Your task to perform on an android device: toggle priority inbox in the gmail app Image 0: 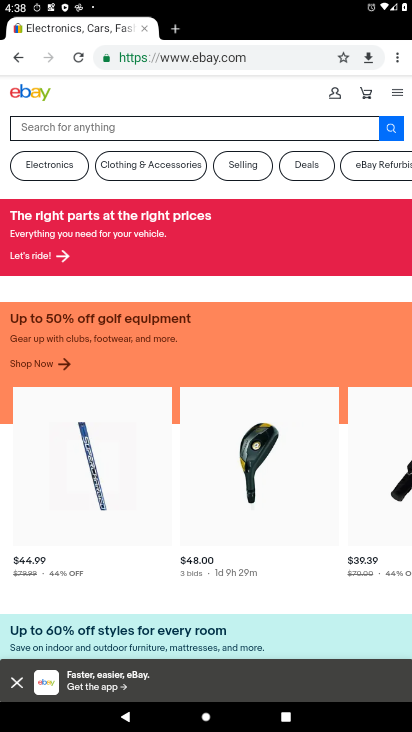
Step 0: press home button
Your task to perform on an android device: toggle priority inbox in the gmail app Image 1: 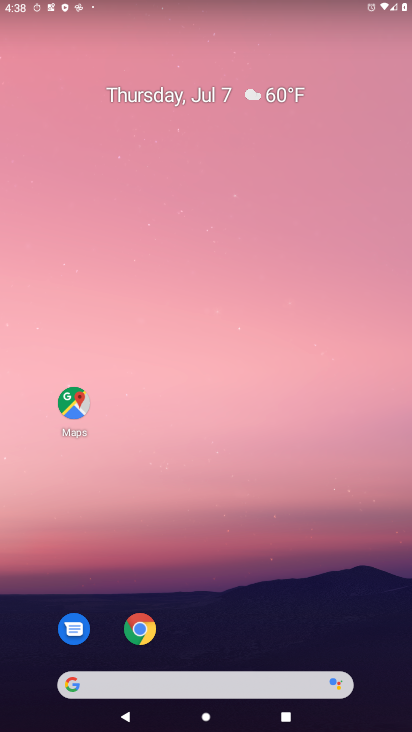
Step 1: drag from (190, 575) to (171, 98)
Your task to perform on an android device: toggle priority inbox in the gmail app Image 2: 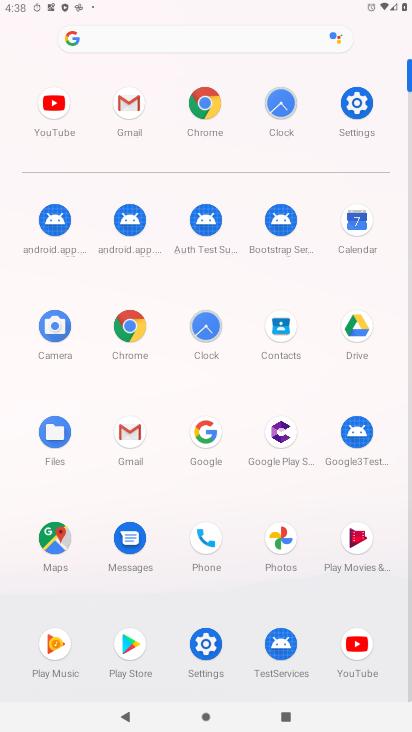
Step 2: click (139, 124)
Your task to perform on an android device: toggle priority inbox in the gmail app Image 3: 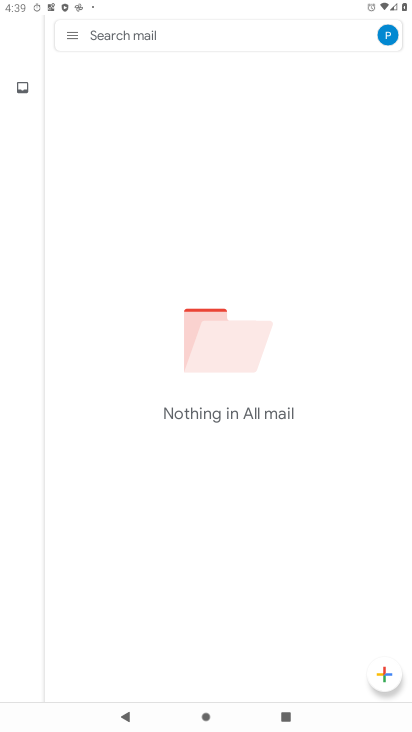
Step 3: click (76, 44)
Your task to perform on an android device: toggle priority inbox in the gmail app Image 4: 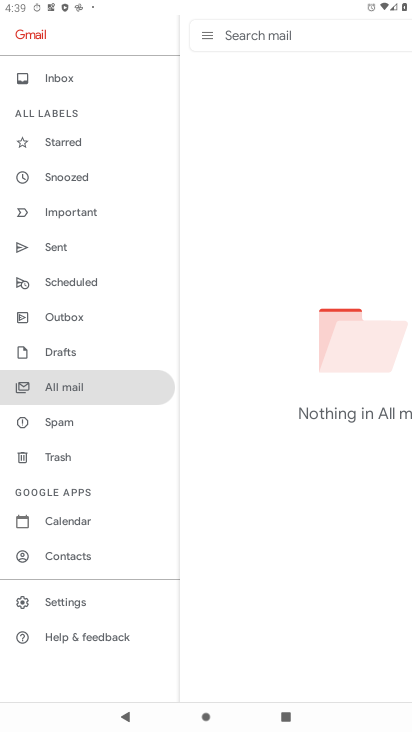
Step 4: click (45, 597)
Your task to perform on an android device: toggle priority inbox in the gmail app Image 5: 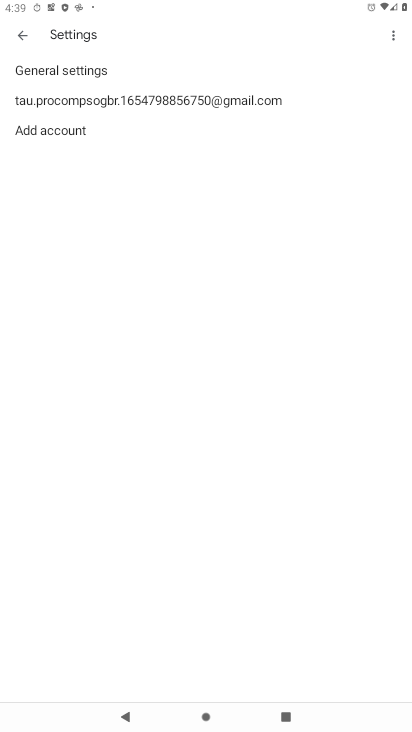
Step 5: click (197, 98)
Your task to perform on an android device: toggle priority inbox in the gmail app Image 6: 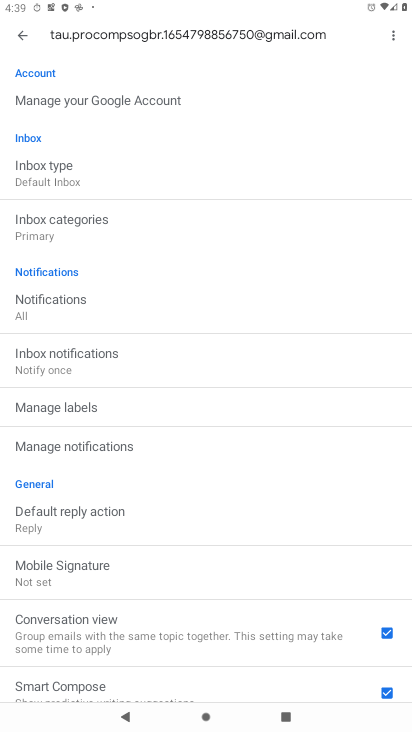
Step 6: click (41, 179)
Your task to perform on an android device: toggle priority inbox in the gmail app Image 7: 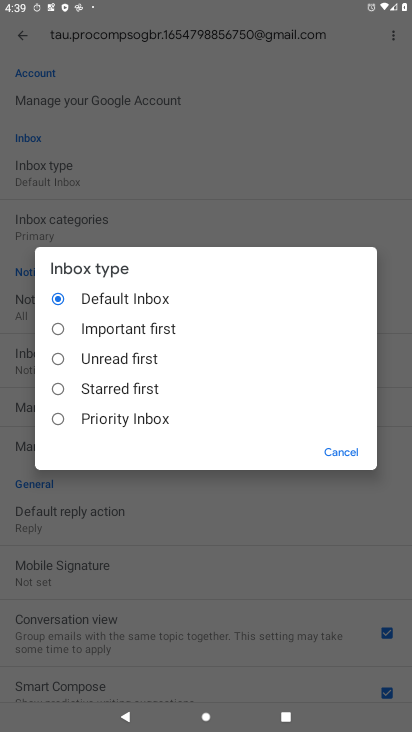
Step 7: click (46, 427)
Your task to perform on an android device: toggle priority inbox in the gmail app Image 8: 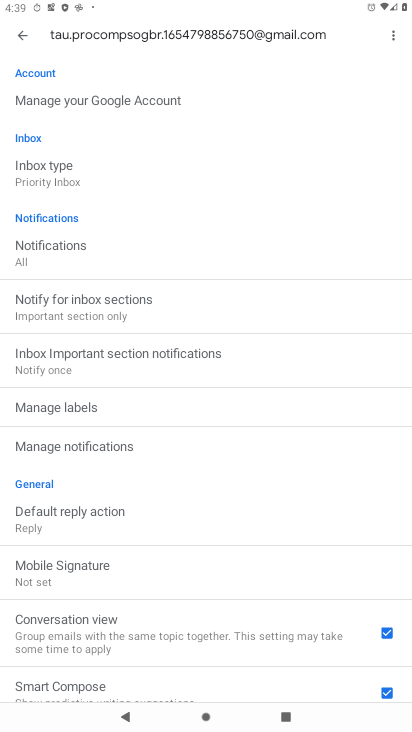
Step 8: task complete